Your task to perform on an android device: Go to Amazon Image 0: 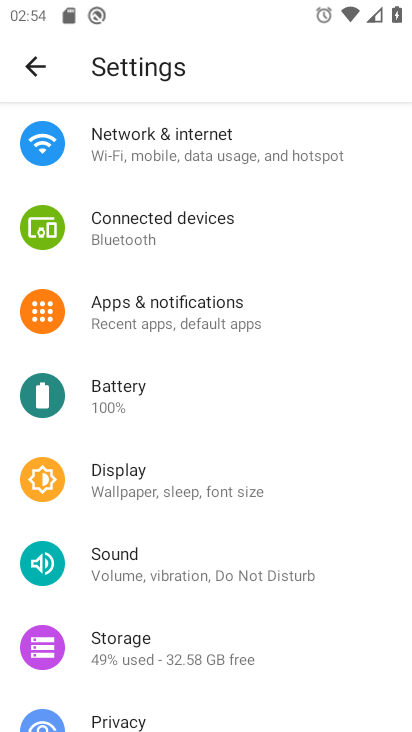
Step 0: press home button
Your task to perform on an android device: Go to Amazon Image 1: 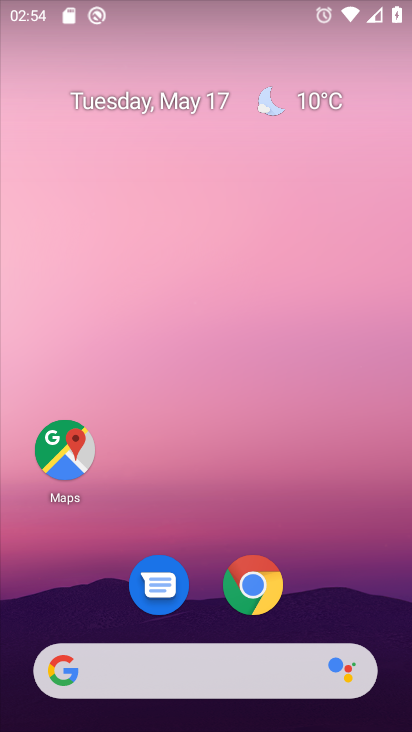
Step 1: click (272, 571)
Your task to perform on an android device: Go to Amazon Image 2: 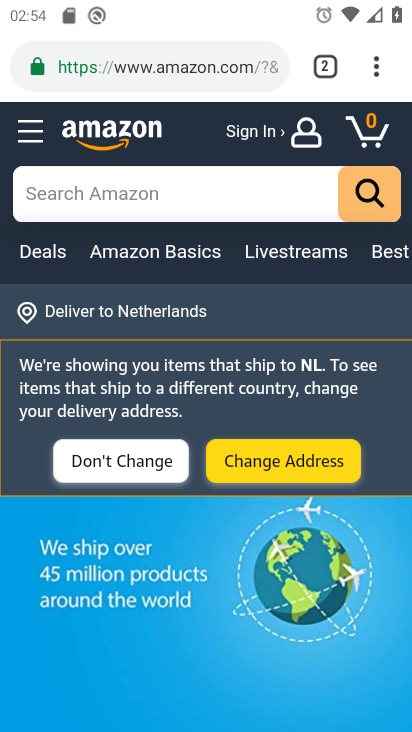
Step 2: click (370, 63)
Your task to perform on an android device: Go to Amazon Image 3: 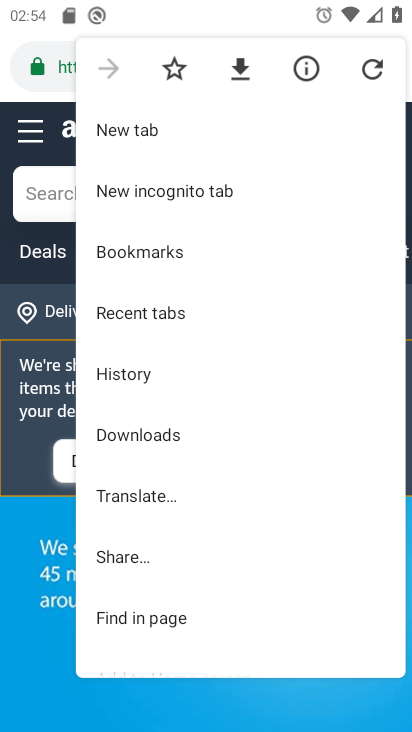
Step 3: click (256, 124)
Your task to perform on an android device: Go to Amazon Image 4: 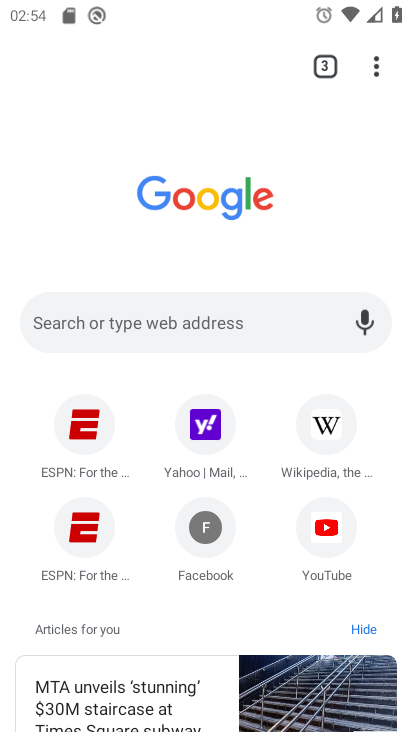
Step 4: click (322, 67)
Your task to perform on an android device: Go to Amazon Image 5: 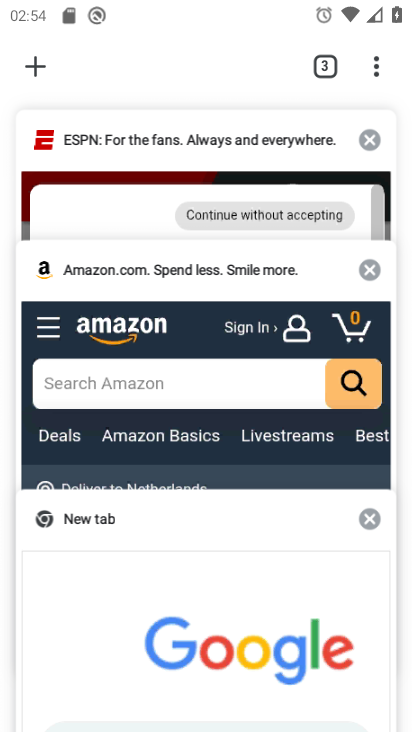
Step 5: click (284, 322)
Your task to perform on an android device: Go to Amazon Image 6: 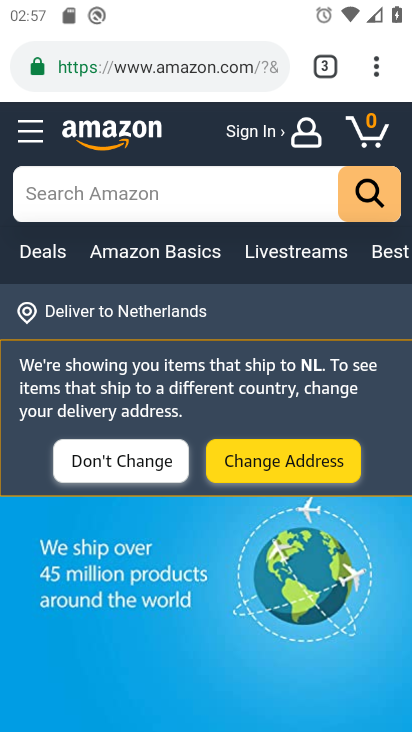
Step 6: task complete